Your task to perform on an android device: delete browsing data in the chrome app Image 0: 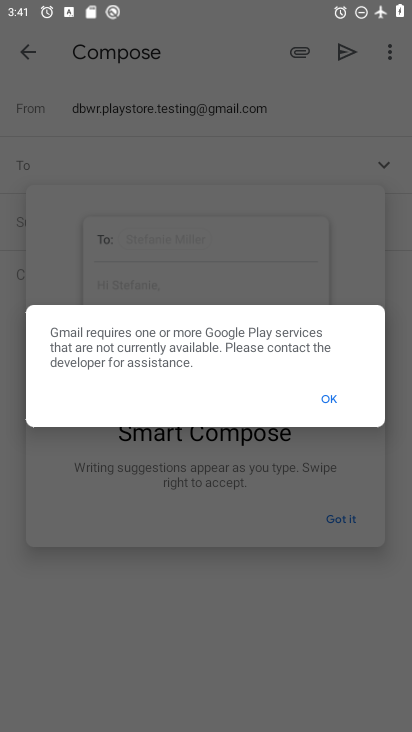
Step 0: press home button
Your task to perform on an android device: delete browsing data in the chrome app Image 1: 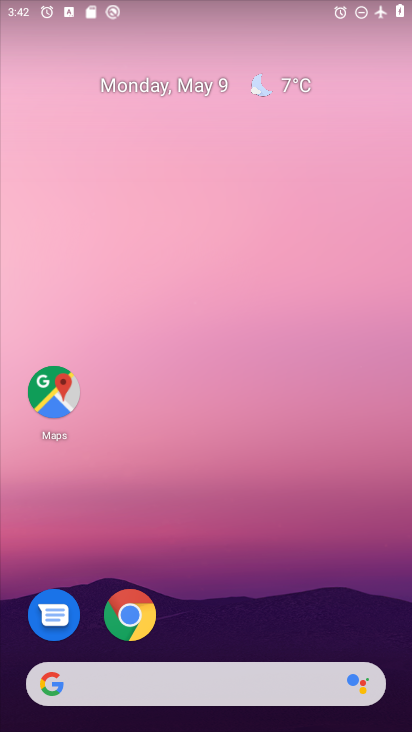
Step 1: click (126, 615)
Your task to perform on an android device: delete browsing data in the chrome app Image 2: 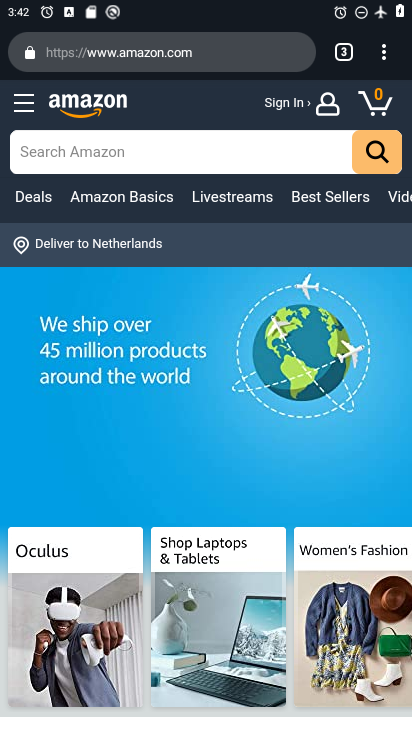
Step 2: click (383, 57)
Your task to perform on an android device: delete browsing data in the chrome app Image 3: 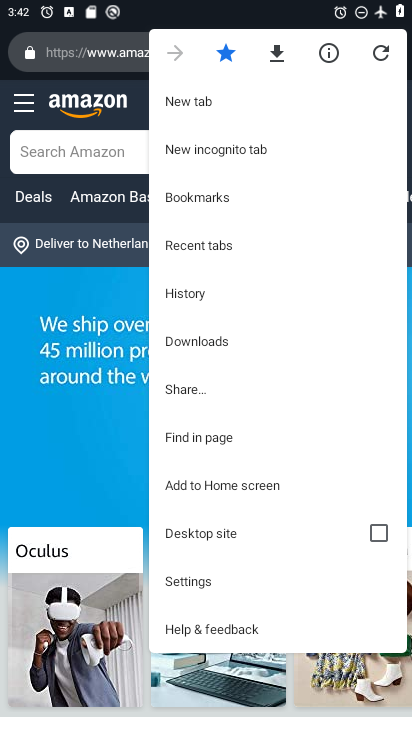
Step 3: click (182, 291)
Your task to perform on an android device: delete browsing data in the chrome app Image 4: 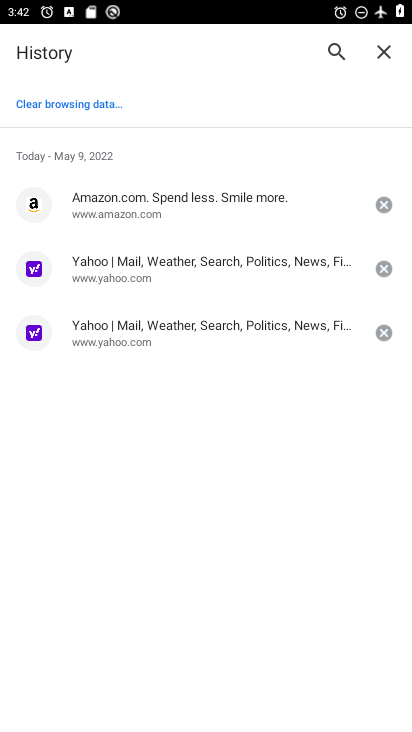
Step 4: click (52, 98)
Your task to perform on an android device: delete browsing data in the chrome app Image 5: 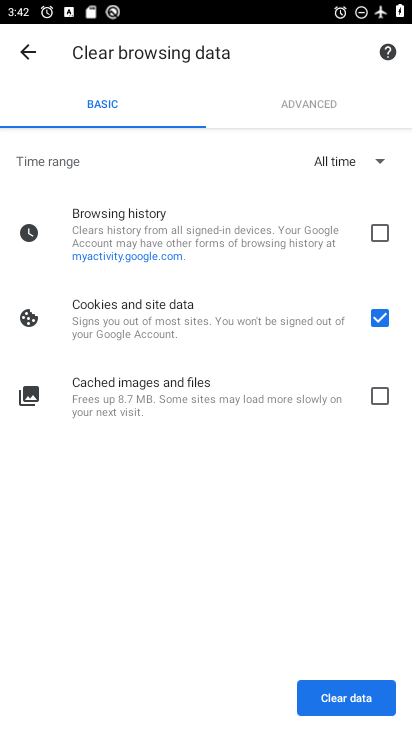
Step 5: click (378, 230)
Your task to perform on an android device: delete browsing data in the chrome app Image 6: 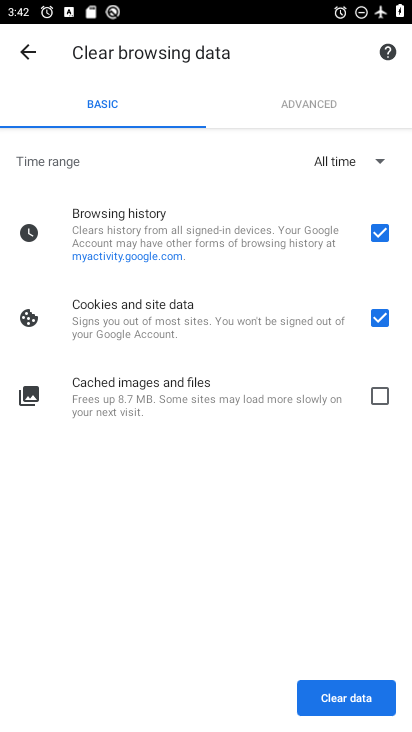
Step 6: click (377, 315)
Your task to perform on an android device: delete browsing data in the chrome app Image 7: 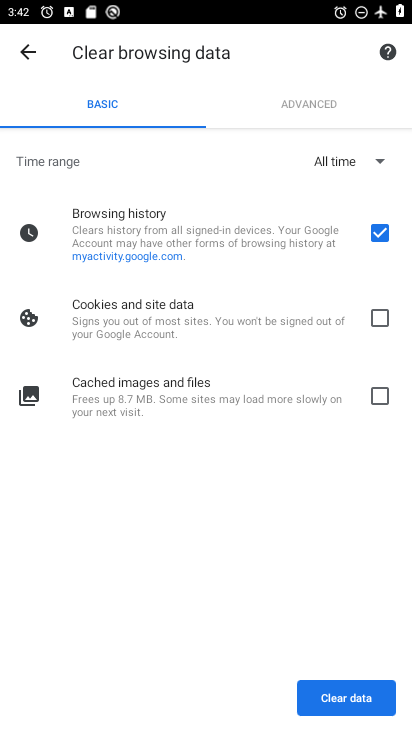
Step 7: click (341, 701)
Your task to perform on an android device: delete browsing data in the chrome app Image 8: 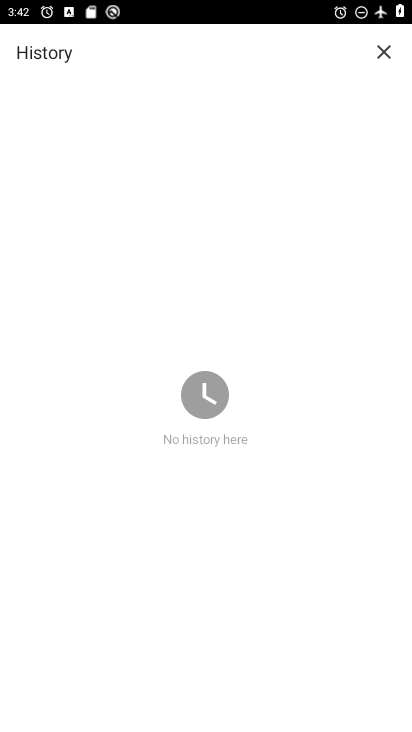
Step 8: task complete